Your task to perform on an android device: Open maps Image 0: 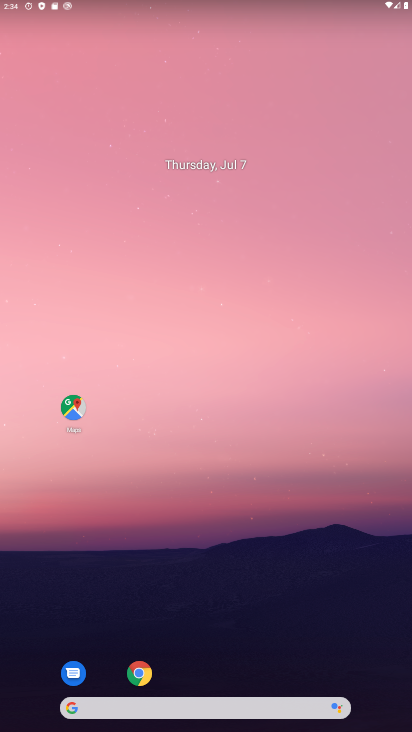
Step 0: click (71, 413)
Your task to perform on an android device: Open maps Image 1: 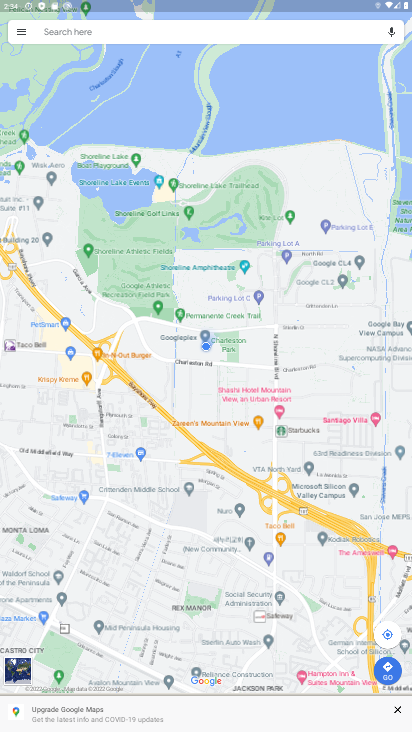
Step 1: task complete